Your task to perform on an android device: turn on data saver in the chrome app Image 0: 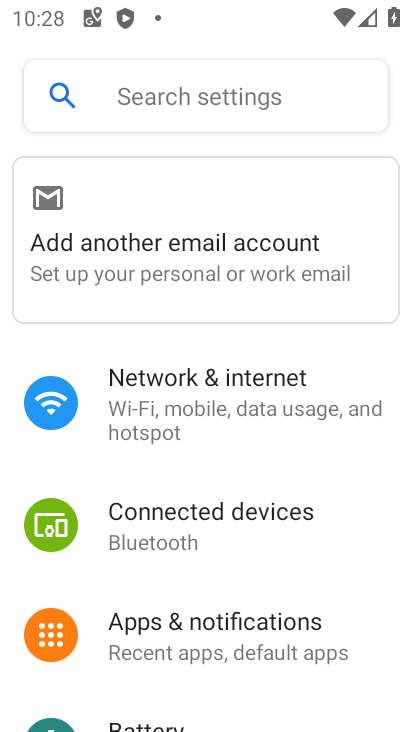
Step 0: press back button
Your task to perform on an android device: turn on data saver in the chrome app Image 1: 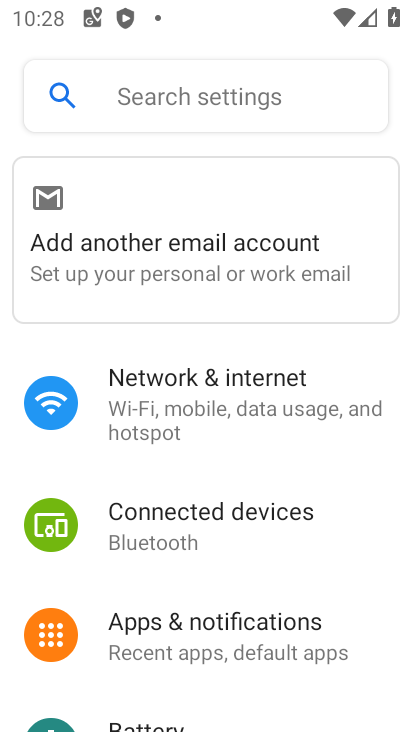
Step 1: press back button
Your task to perform on an android device: turn on data saver in the chrome app Image 2: 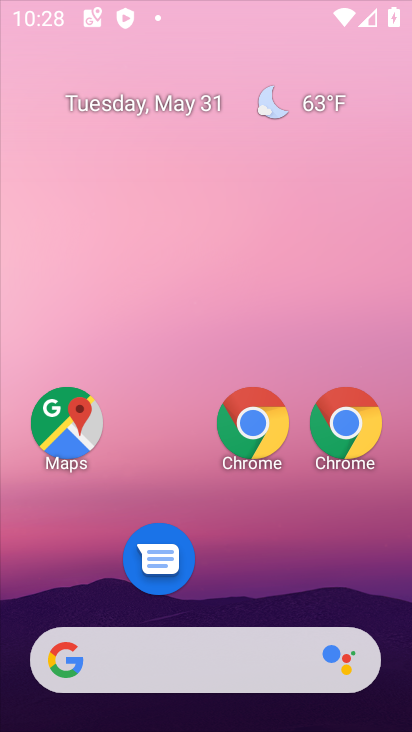
Step 2: press back button
Your task to perform on an android device: turn on data saver in the chrome app Image 3: 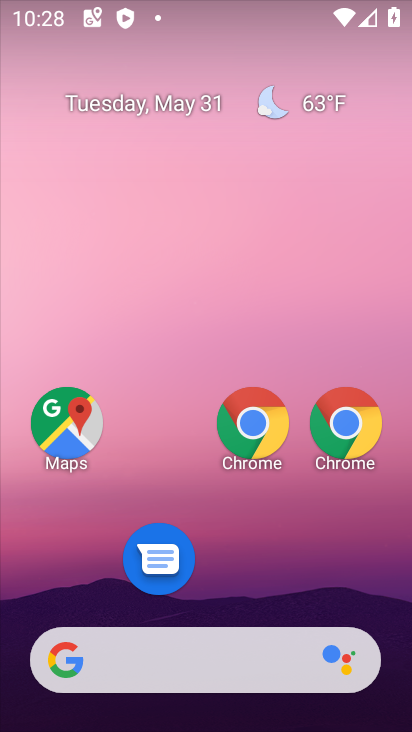
Step 3: drag from (222, 624) to (2, 292)
Your task to perform on an android device: turn on data saver in the chrome app Image 4: 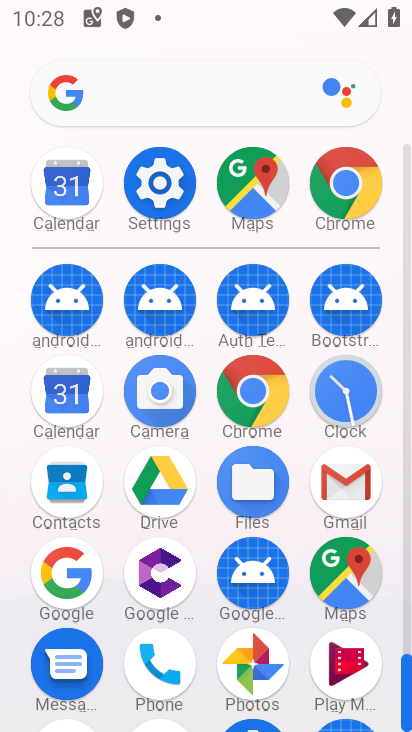
Step 4: click (346, 184)
Your task to perform on an android device: turn on data saver in the chrome app Image 5: 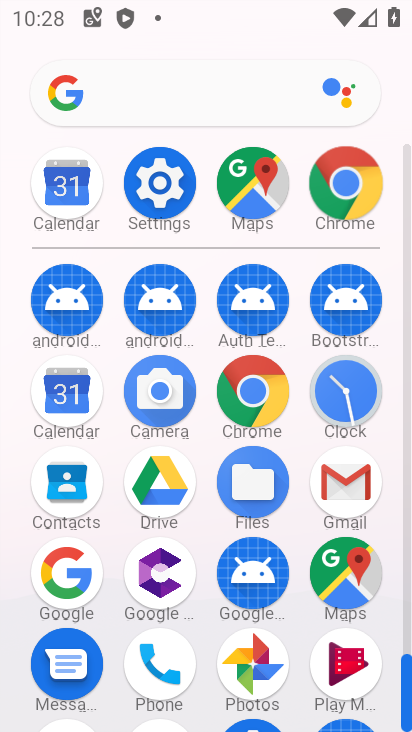
Step 5: click (346, 183)
Your task to perform on an android device: turn on data saver in the chrome app Image 6: 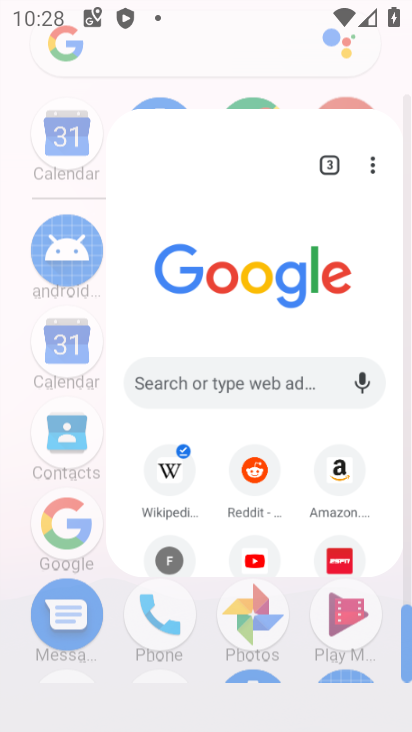
Step 6: click (346, 183)
Your task to perform on an android device: turn on data saver in the chrome app Image 7: 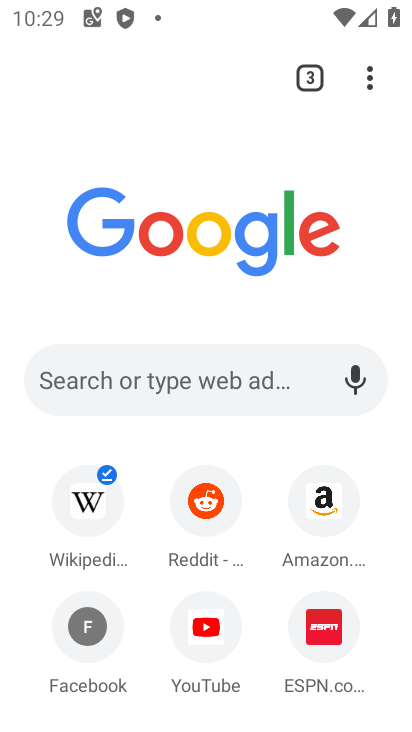
Step 7: drag from (365, 84) to (72, 623)
Your task to perform on an android device: turn on data saver in the chrome app Image 8: 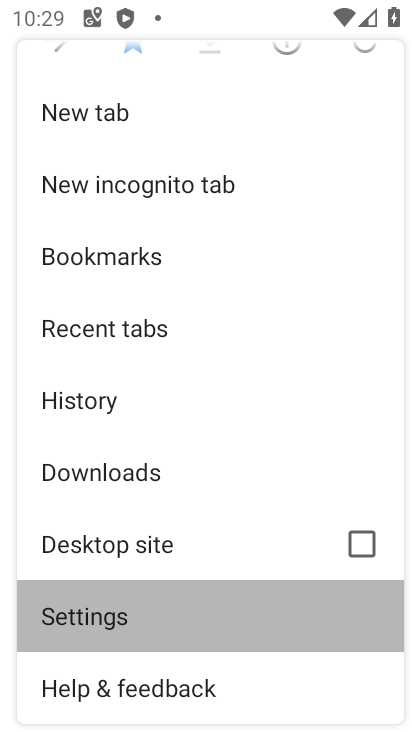
Step 8: click (70, 621)
Your task to perform on an android device: turn on data saver in the chrome app Image 9: 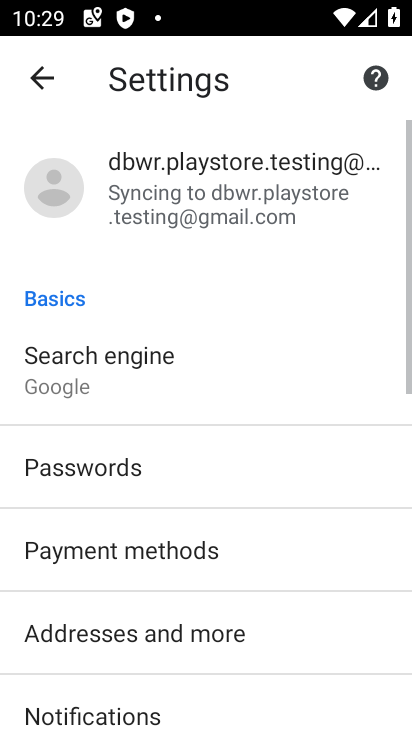
Step 9: drag from (183, 531) to (196, 138)
Your task to perform on an android device: turn on data saver in the chrome app Image 10: 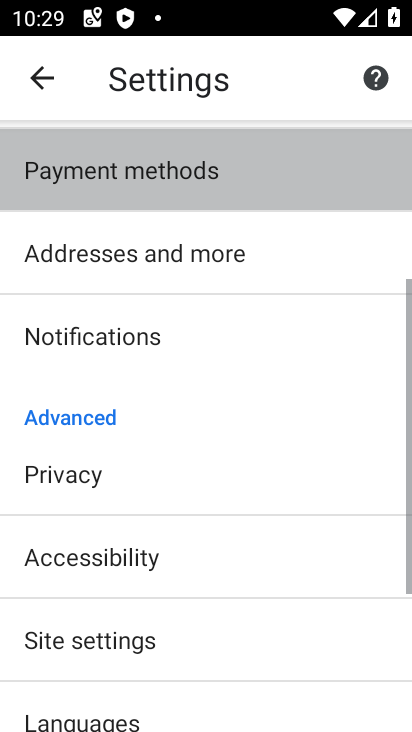
Step 10: drag from (223, 459) to (264, 147)
Your task to perform on an android device: turn on data saver in the chrome app Image 11: 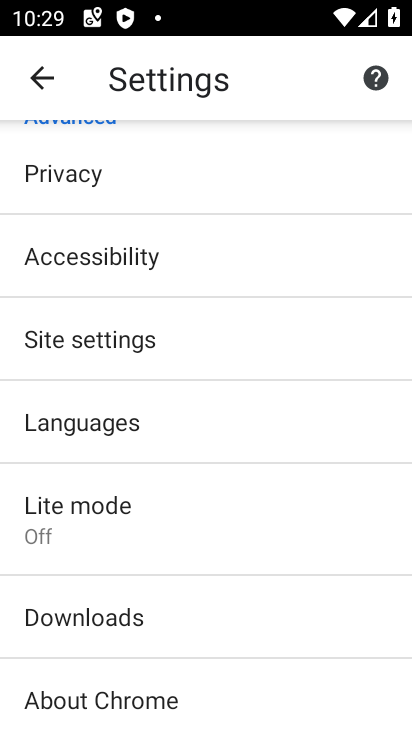
Step 11: click (72, 502)
Your task to perform on an android device: turn on data saver in the chrome app Image 12: 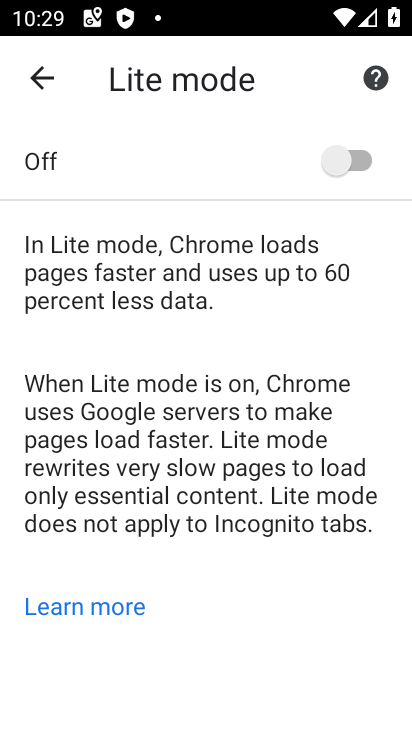
Step 12: click (346, 159)
Your task to perform on an android device: turn on data saver in the chrome app Image 13: 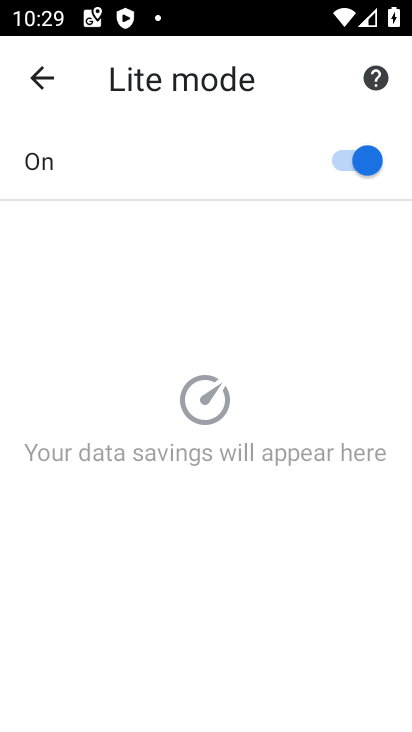
Step 13: task complete